Your task to perform on an android device: What is the news today? Image 0: 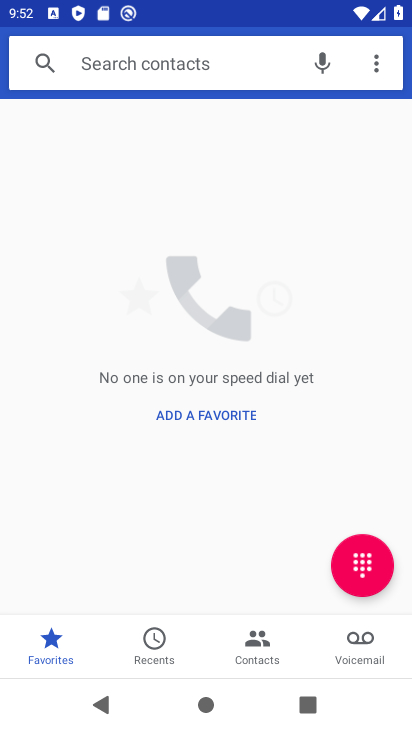
Step 0: press home button
Your task to perform on an android device: What is the news today? Image 1: 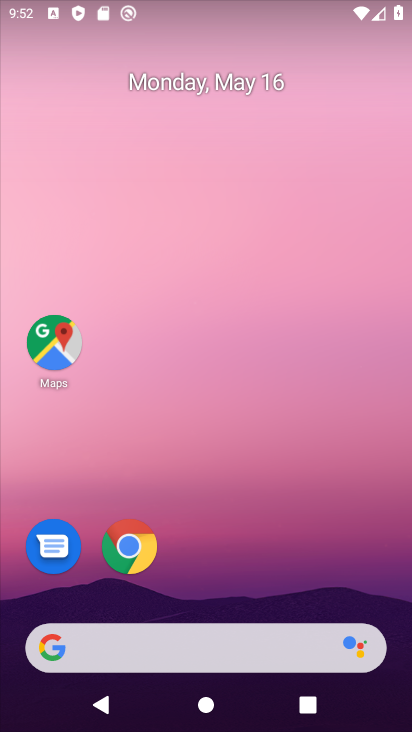
Step 1: click (190, 655)
Your task to perform on an android device: What is the news today? Image 2: 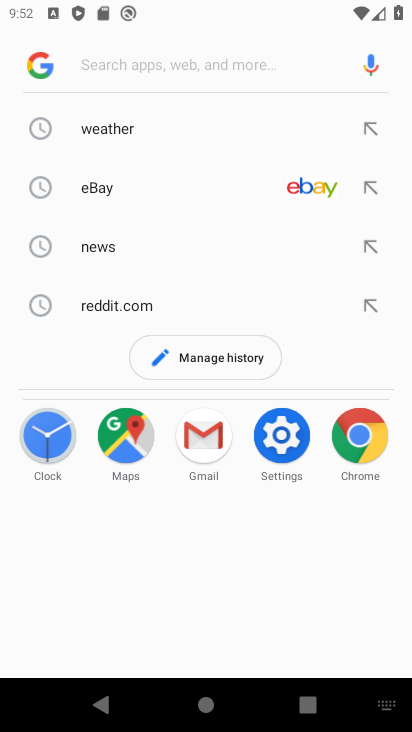
Step 2: click (101, 267)
Your task to perform on an android device: What is the news today? Image 3: 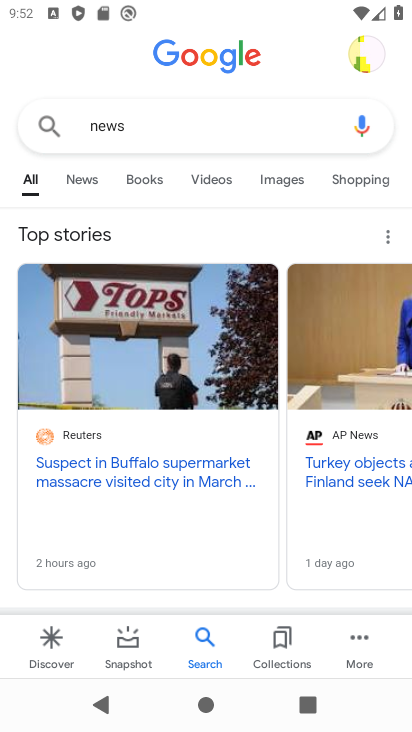
Step 3: task complete